Your task to perform on an android device: toggle wifi Image 0: 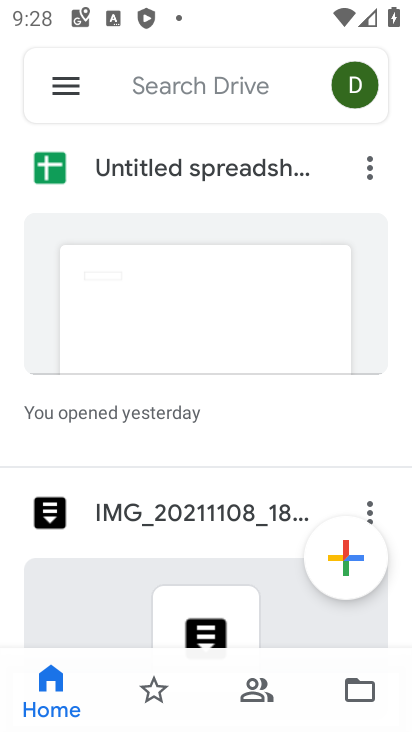
Step 0: press home button
Your task to perform on an android device: toggle wifi Image 1: 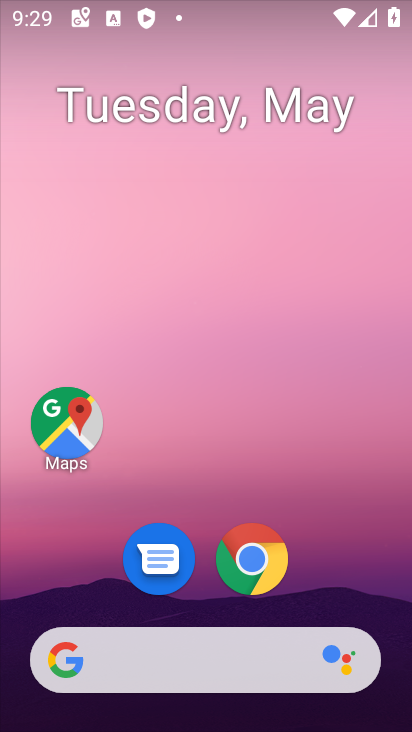
Step 1: drag from (251, 632) to (235, 246)
Your task to perform on an android device: toggle wifi Image 2: 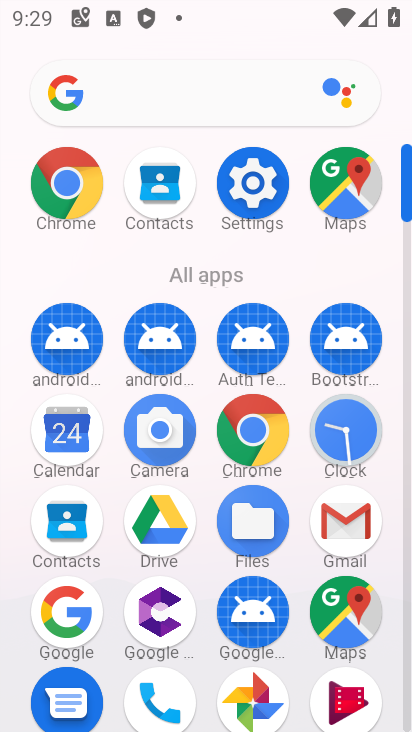
Step 2: click (256, 170)
Your task to perform on an android device: toggle wifi Image 3: 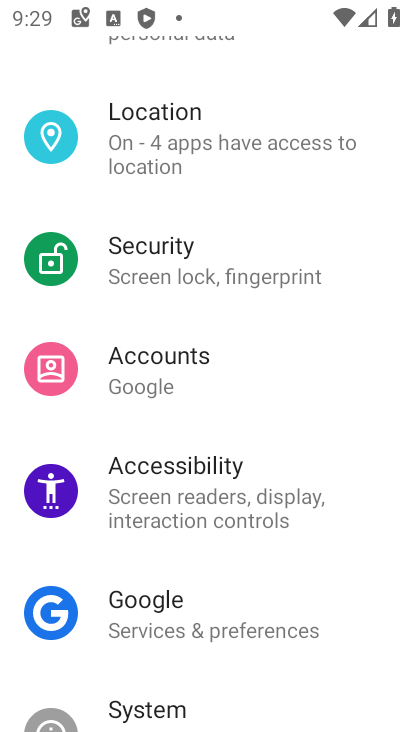
Step 3: drag from (244, 151) to (158, 579)
Your task to perform on an android device: toggle wifi Image 4: 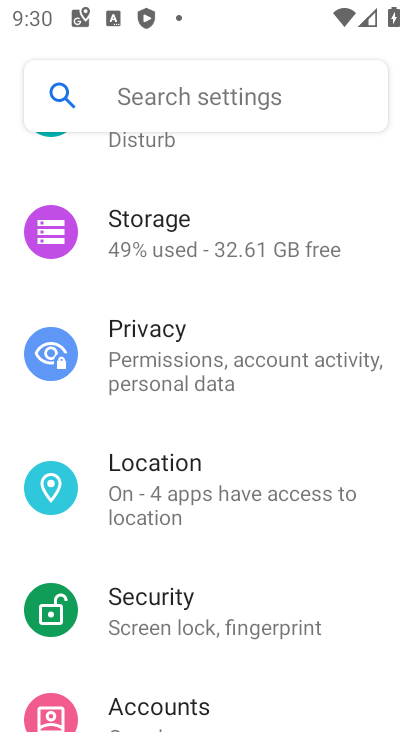
Step 4: drag from (145, 171) to (115, 708)
Your task to perform on an android device: toggle wifi Image 5: 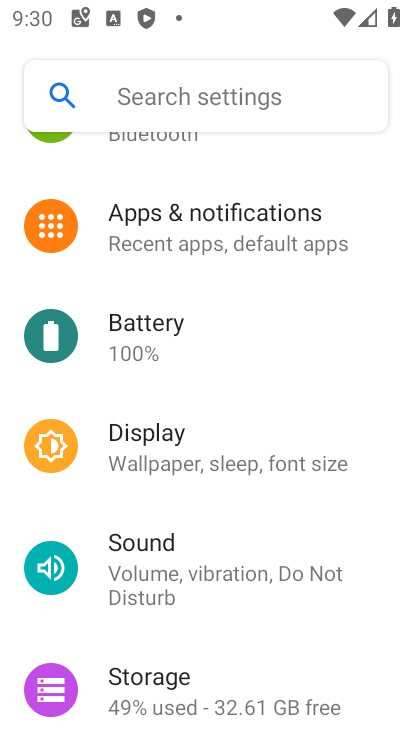
Step 5: drag from (166, 269) to (250, 631)
Your task to perform on an android device: toggle wifi Image 6: 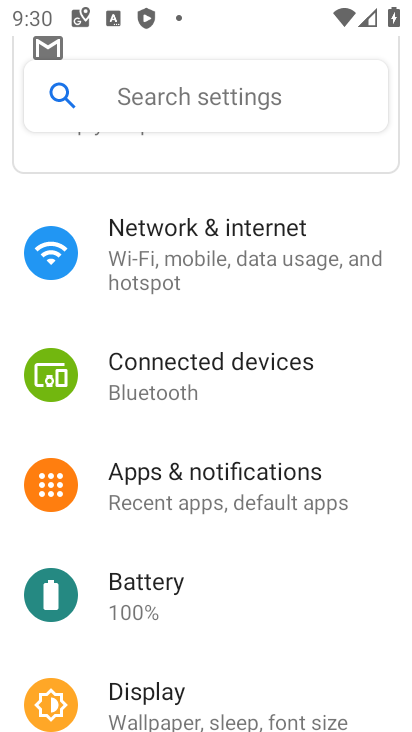
Step 6: click (128, 268)
Your task to perform on an android device: toggle wifi Image 7: 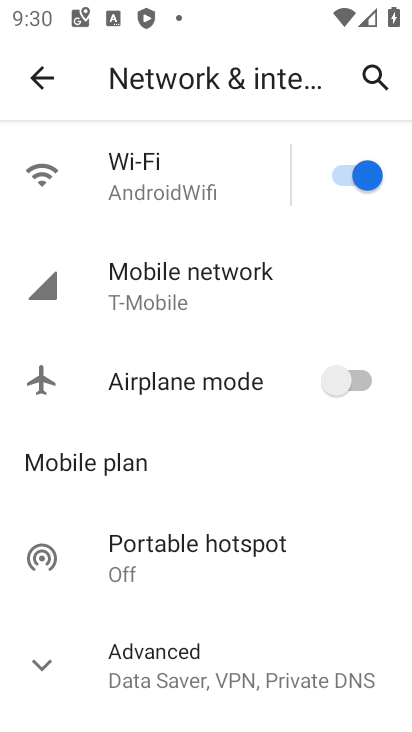
Step 7: click (368, 174)
Your task to perform on an android device: toggle wifi Image 8: 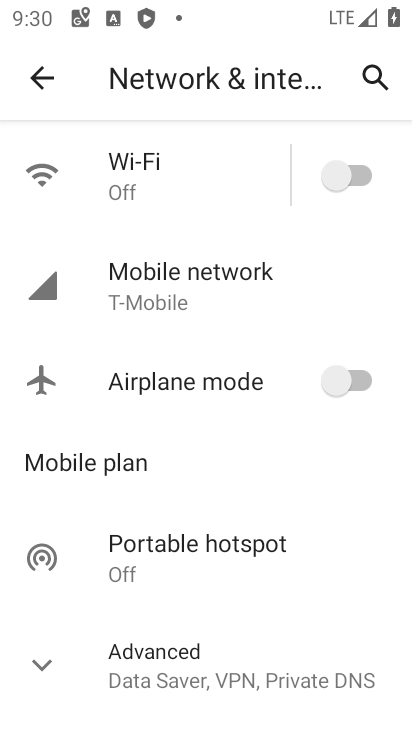
Step 8: task complete